Your task to perform on an android device: clear all cookies in the chrome app Image 0: 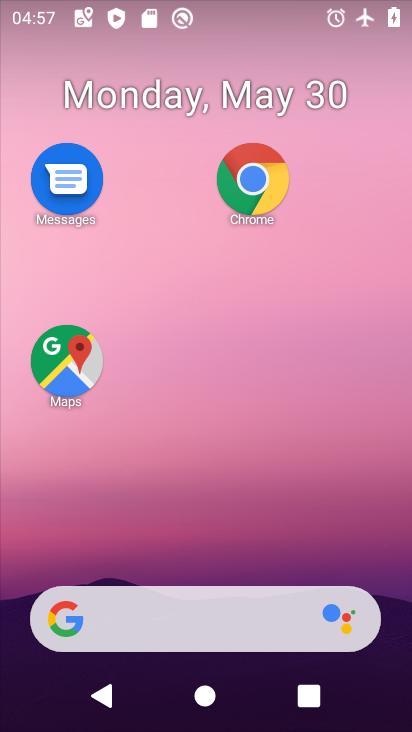
Step 0: drag from (209, 560) to (133, 23)
Your task to perform on an android device: clear all cookies in the chrome app Image 1: 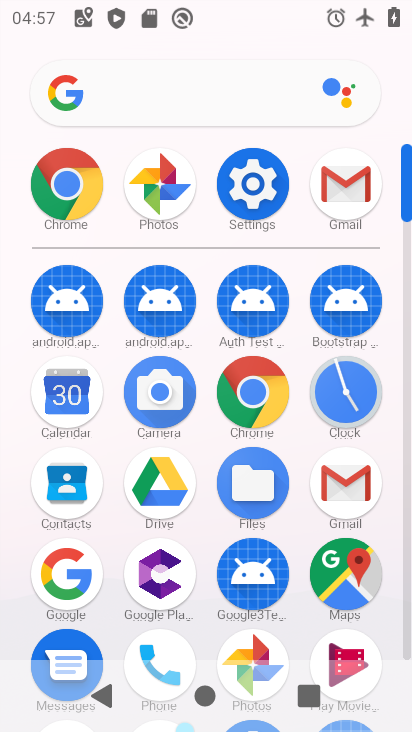
Step 1: click (73, 203)
Your task to perform on an android device: clear all cookies in the chrome app Image 2: 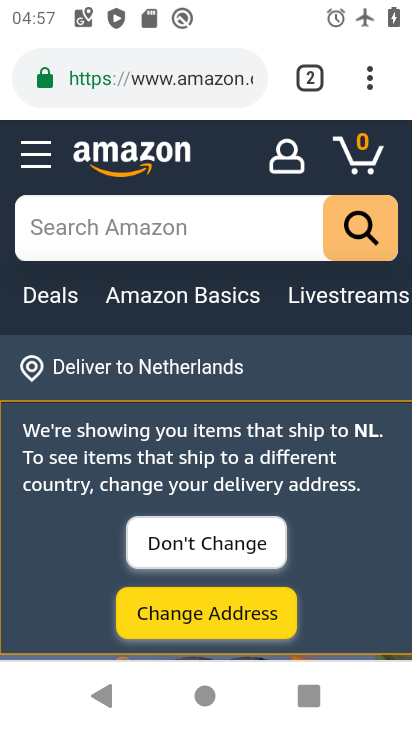
Step 2: click (367, 71)
Your task to perform on an android device: clear all cookies in the chrome app Image 3: 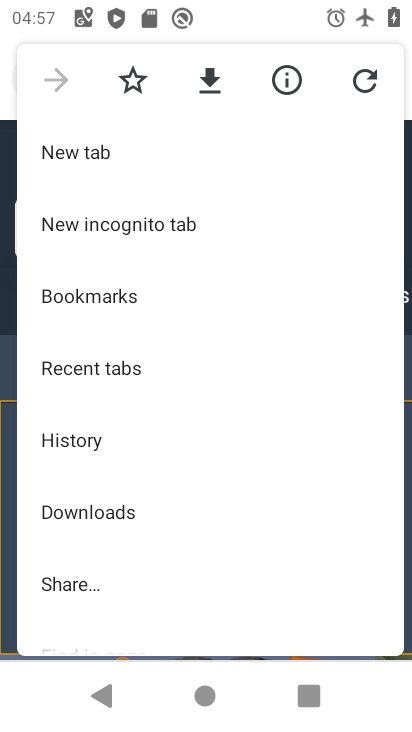
Step 3: click (59, 442)
Your task to perform on an android device: clear all cookies in the chrome app Image 4: 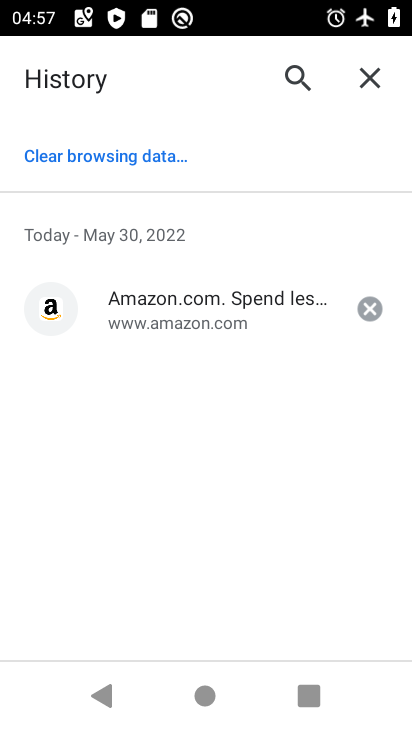
Step 4: click (96, 164)
Your task to perform on an android device: clear all cookies in the chrome app Image 5: 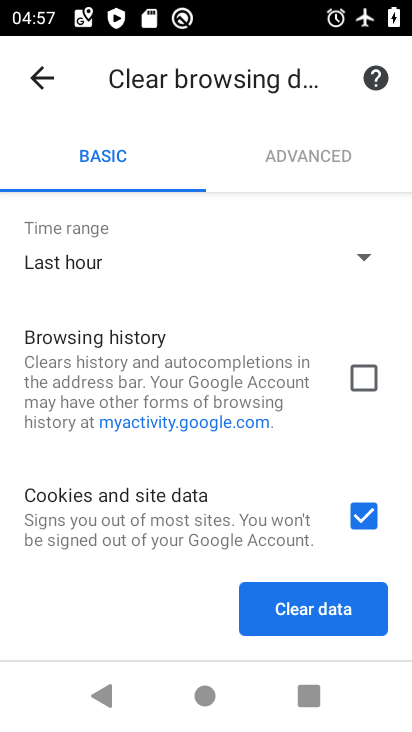
Step 5: click (375, 603)
Your task to perform on an android device: clear all cookies in the chrome app Image 6: 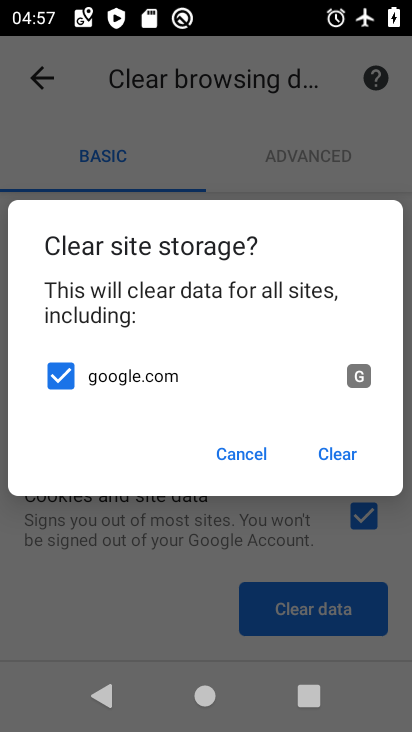
Step 6: click (327, 433)
Your task to perform on an android device: clear all cookies in the chrome app Image 7: 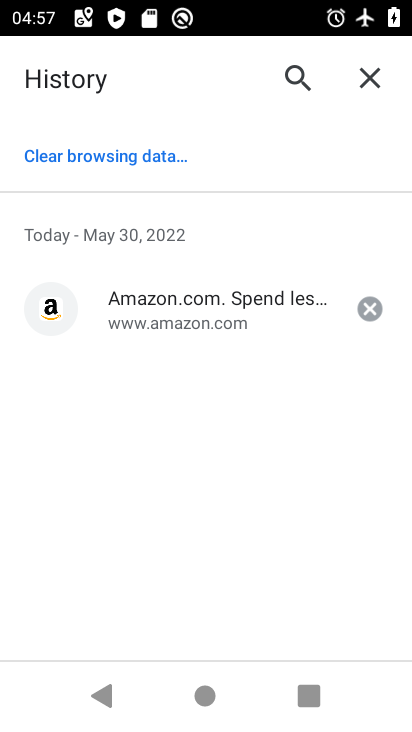
Step 7: task complete